Your task to perform on an android device: Go to sound settings Image 0: 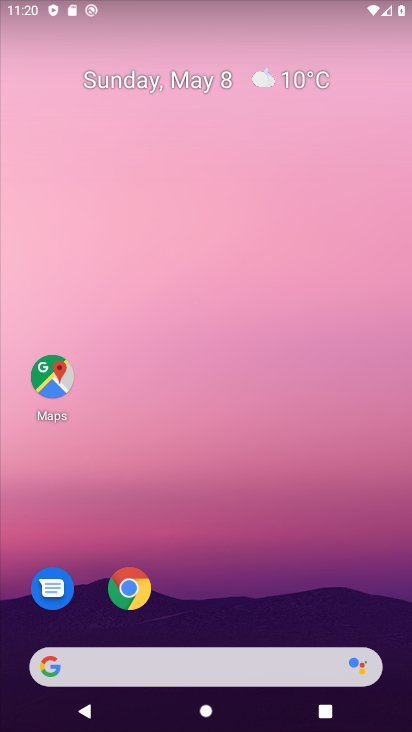
Step 0: drag from (240, 587) to (336, 75)
Your task to perform on an android device: Go to sound settings Image 1: 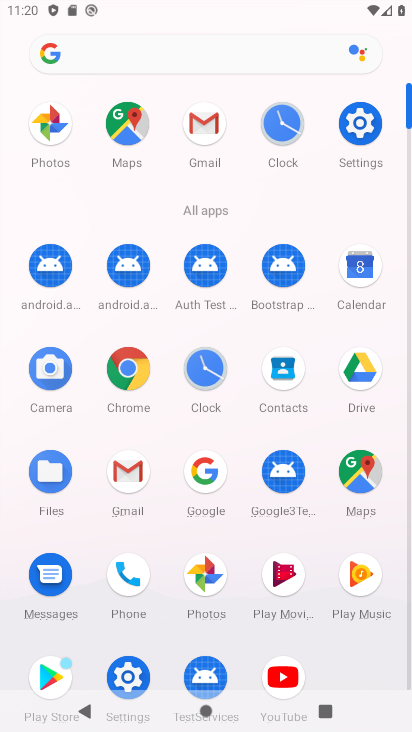
Step 1: click (360, 128)
Your task to perform on an android device: Go to sound settings Image 2: 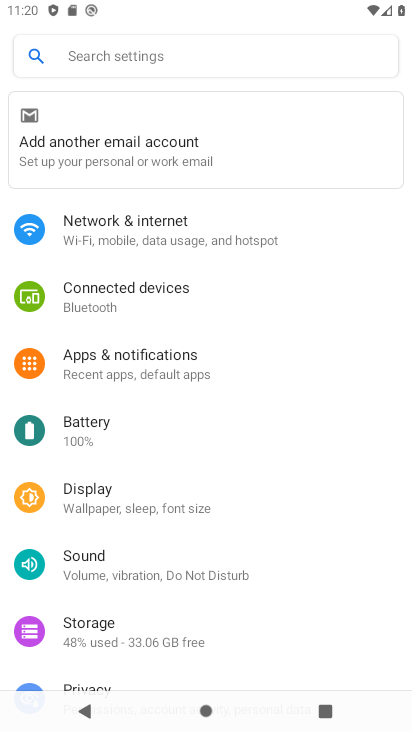
Step 2: click (105, 579)
Your task to perform on an android device: Go to sound settings Image 3: 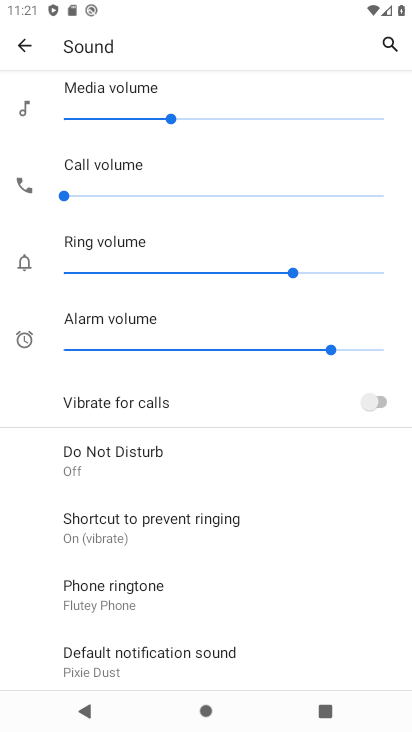
Step 3: task complete